Your task to perform on an android device: toggle notifications settings in the gmail app Image 0: 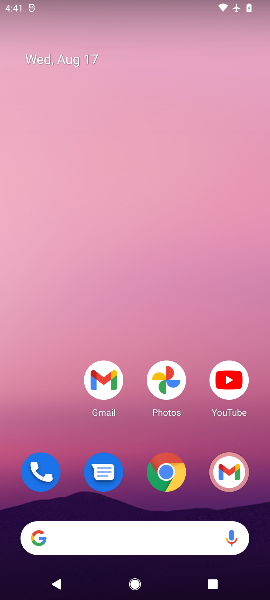
Step 0: click (106, 373)
Your task to perform on an android device: toggle notifications settings in the gmail app Image 1: 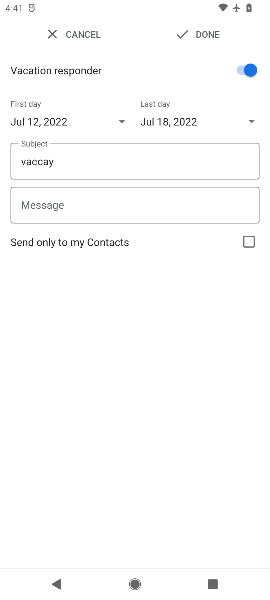
Step 1: press back button
Your task to perform on an android device: toggle notifications settings in the gmail app Image 2: 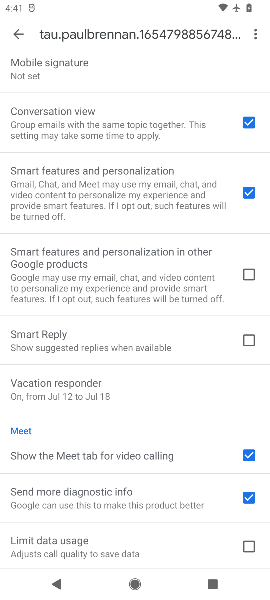
Step 2: click (16, 26)
Your task to perform on an android device: toggle notifications settings in the gmail app Image 3: 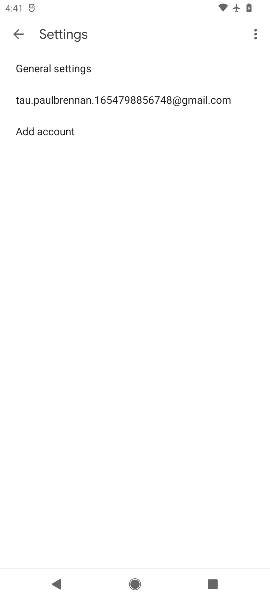
Step 3: click (93, 69)
Your task to perform on an android device: toggle notifications settings in the gmail app Image 4: 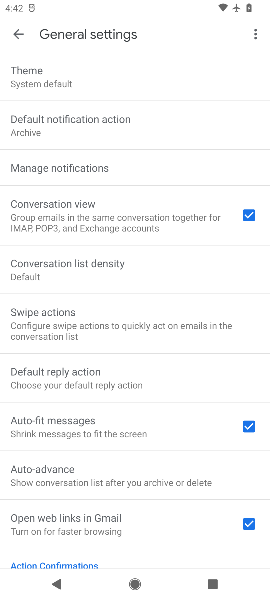
Step 4: click (81, 165)
Your task to perform on an android device: toggle notifications settings in the gmail app Image 5: 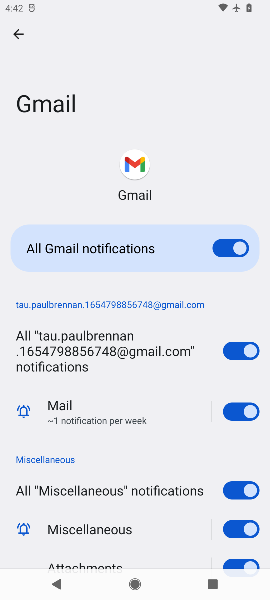
Step 5: click (203, 243)
Your task to perform on an android device: toggle notifications settings in the gmail app Image 6: 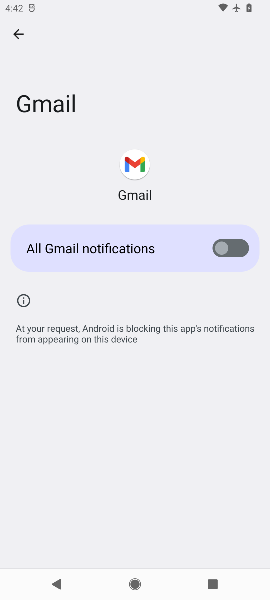
Step 6: task complete